Your task to perform on an android device: find which apps use the phone's location Image 0: 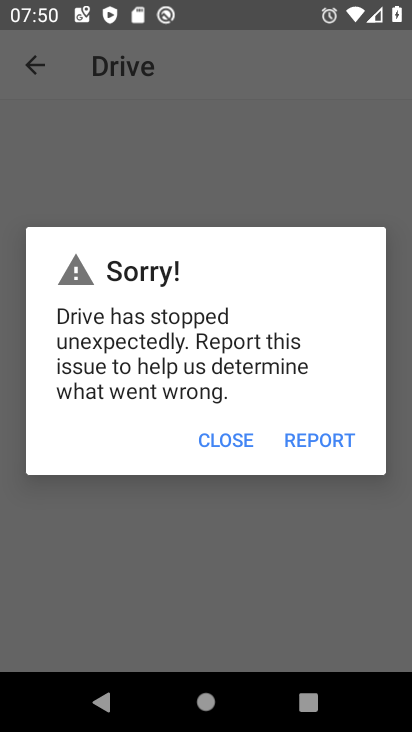
Step 0: press home button
Your task to perform on an android device: find which apps use the phone's location Image 1: 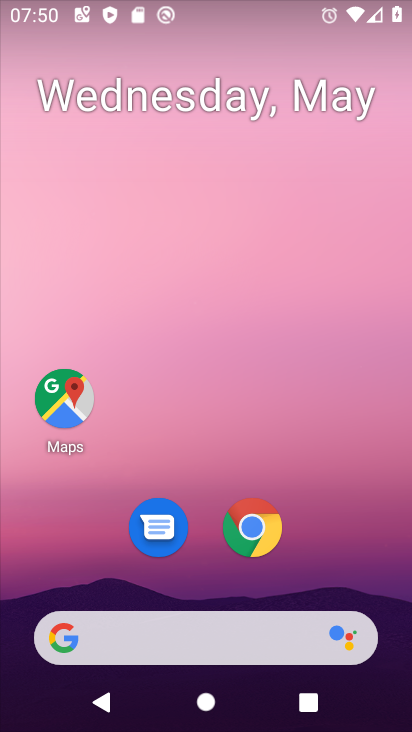
Step 1: drag from (238, 592) to (222, 227)
Your task to perform on an android device: find which apps use the phone's location Image 2: 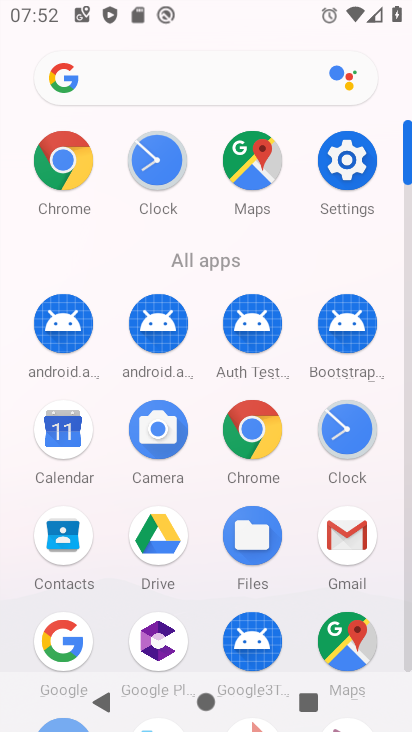
Step 2: click (404, 667)
Your task to perform on an android device: find which apps use the phone's location Image 3: 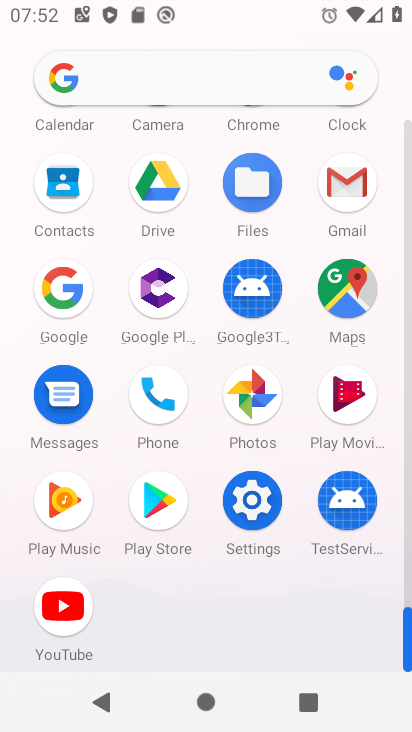
Step 3: click (168, 409)
Your task to perform on an android device: find which apps use the phone's location Image 4: 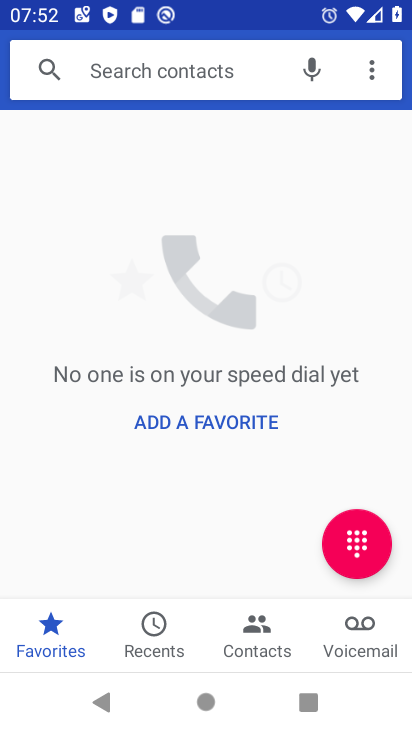
Step 4: press back button
Your task to perform on an android device: find which apps use the phone's location Image 5: 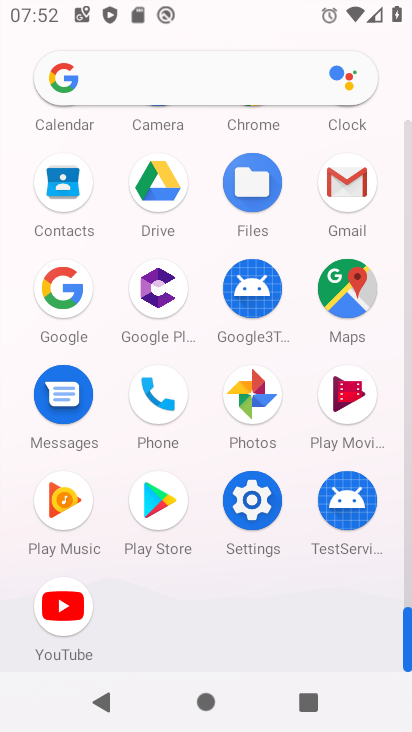
Step 5: click (145, 401)
Your task to perform on an android device: find which apps use the phone's location Image 6: 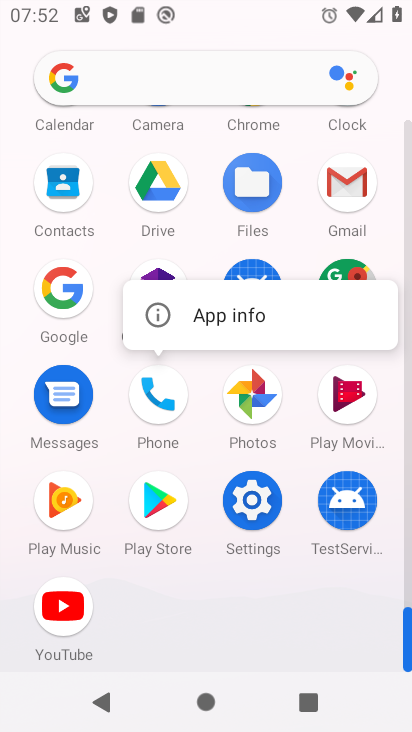
Step 6: click (213, 322)
Your task to perform on an android device: find which apps use the phone's location Image 7: 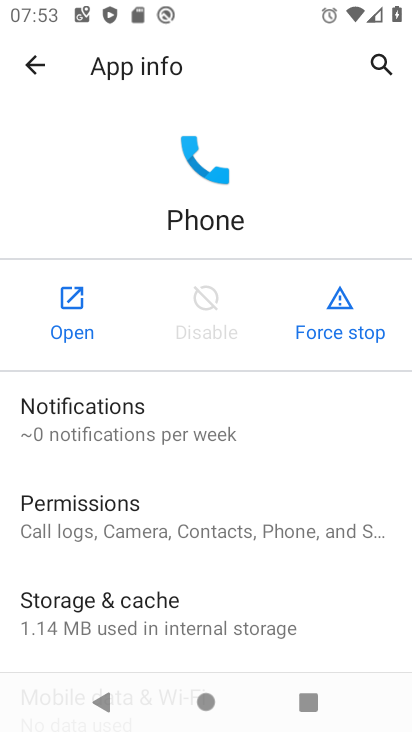
Step 7: drag from (217, 580) to (205, 416)
Your task to perform on an android device: find which apps use the phone's location Image 8: 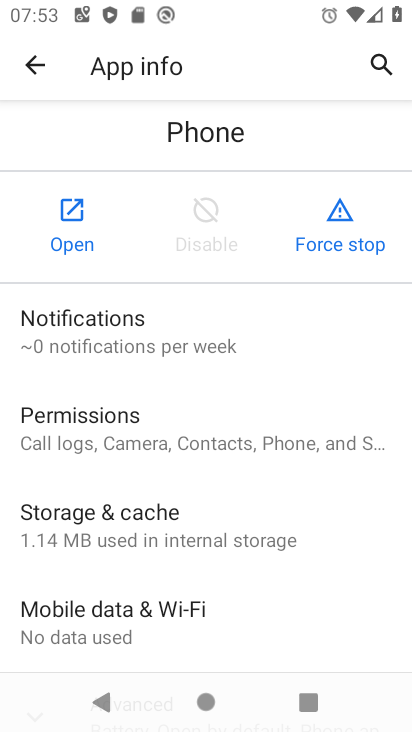
Step 8: drag from (231, 572) to (194, 417)
Your task to perform on an android device: find which apps use the phone's location Image 9: 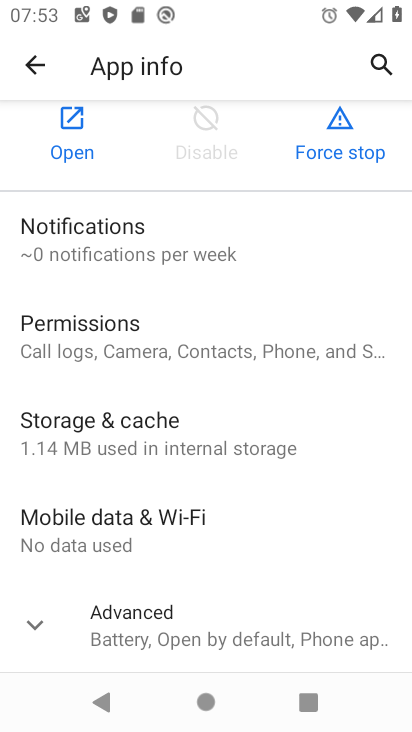
Step 9: click (204, 352)
Your task to perform on an android device: find which apps use the phone's location Image 10: 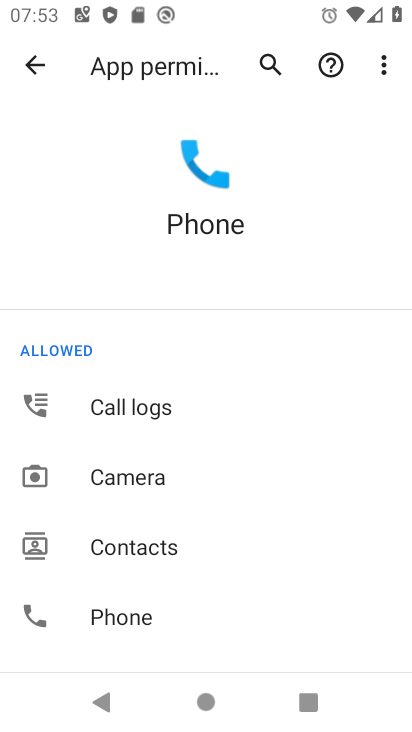
Step 10: drag from (234, 602) to (174, 311)
Your task to perform on an android device: find which apps use the phone's location Image 11: 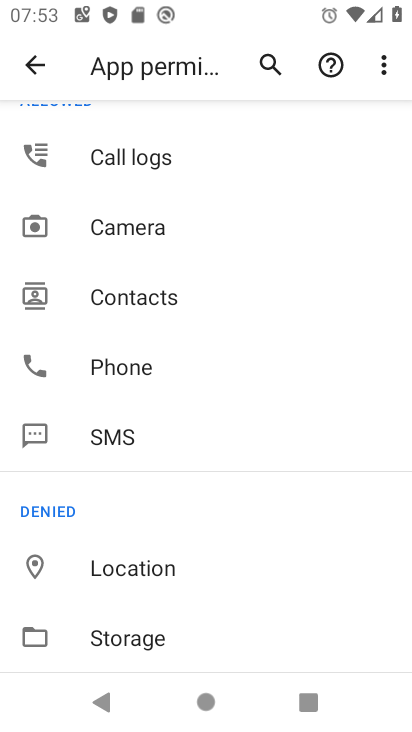
Step 11: click (185, 561)
Your task to perform on an android device: find which apps use the phone's location Image 12: 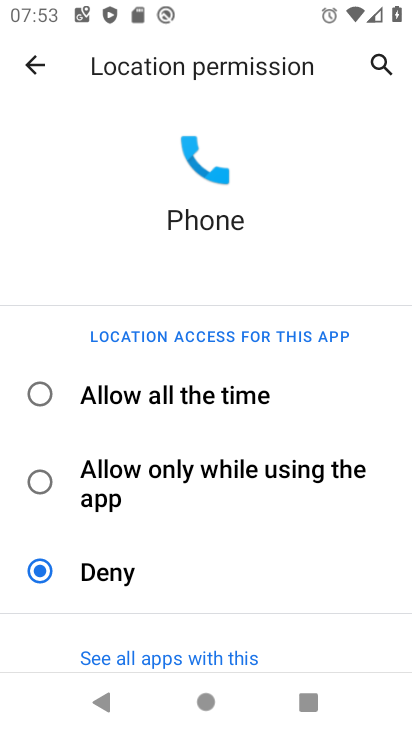
Step 12: drag from (195, 635) to (195, 257)
Your task to perform on an android device: find which apps use the phone's location Image 13: 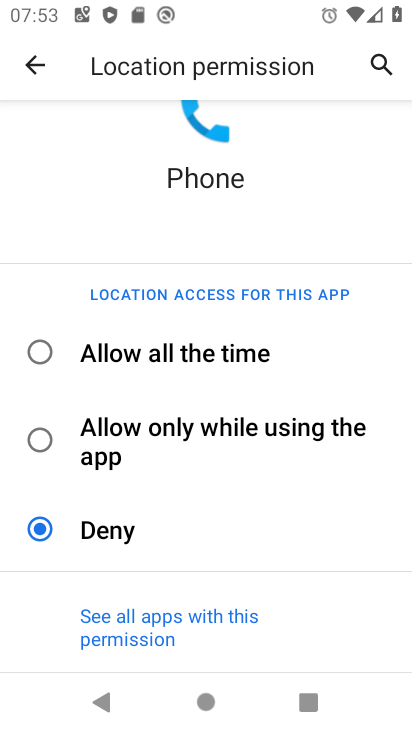
Step 13: click (234, 601)
Your task to perform on an android device: find which apps use the phone's location Image 14: 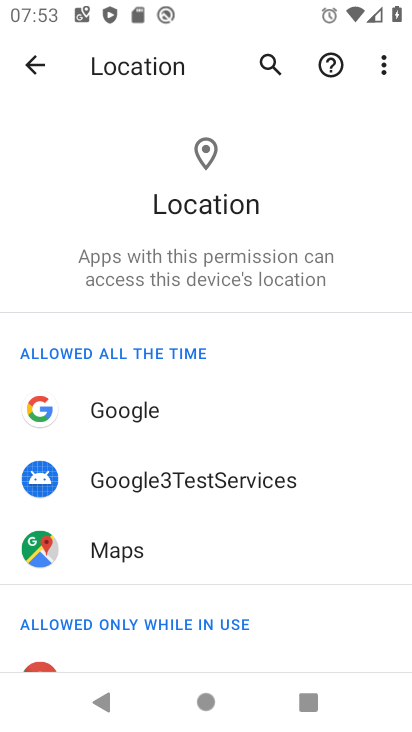
Step 14: task complete